Your task to perform on an android device: turn off smart reply in the gmail app Image 0: 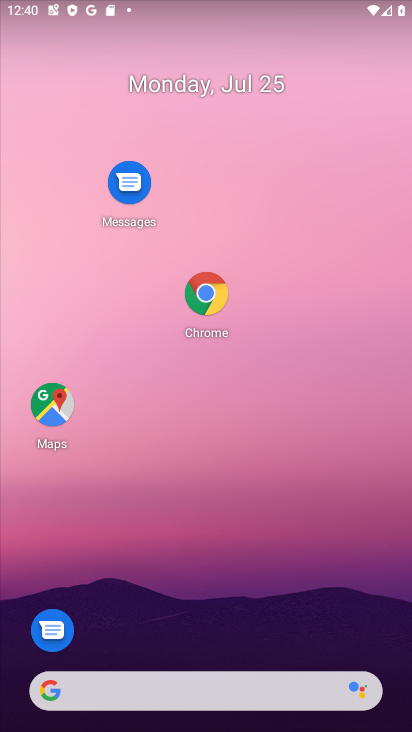
Step 0: drag from (311, 556) to (290, 32)
Your task to perform on an android device: turn off smart reply in the gmail app Image 1: 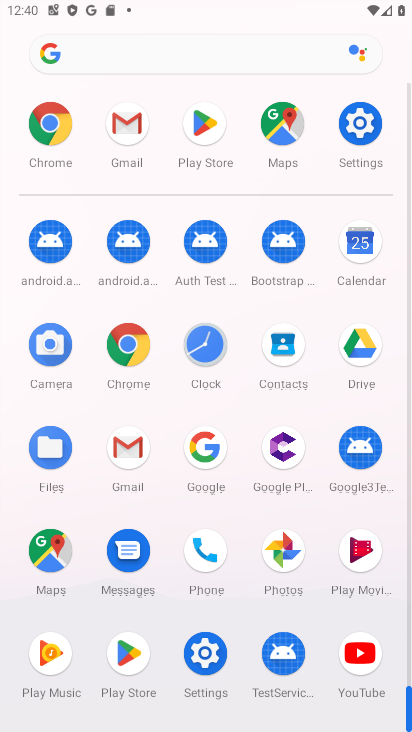
Step 1: click (126, 122)
Your task to perform on an android device: turn off smart reply in the gmail app Image 2: 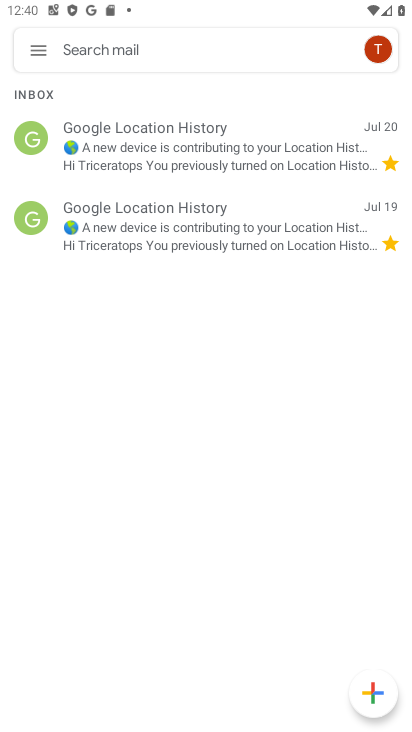
Step 2: click (45, 48)
Your task to perform on an android device: turn off smart reply in the gmail app Image 3: 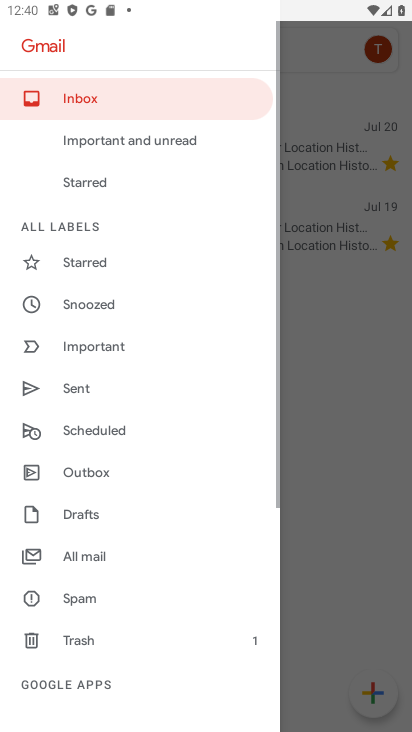
Step 3: drag from (129, 537) to (161, 159)
Your task to perform on an android device: turn off smart reply in the gmail app Image 4: 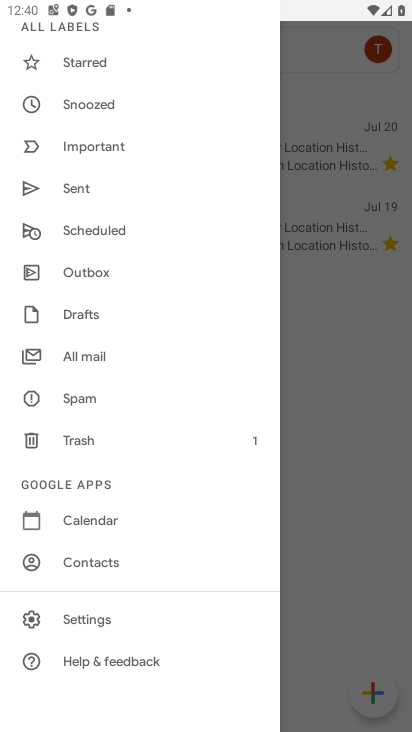
Step 4: click (77, 624)
Your task to perform on an android device: turn off smart reply in the gmail app Image 5: 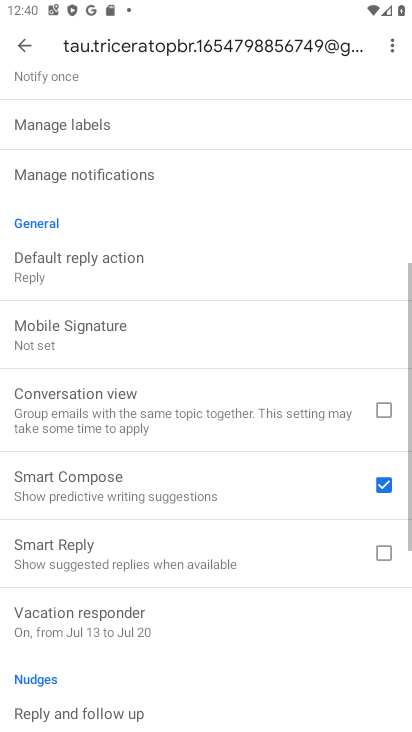
Step 5: task complete